Your task to perform on an android device: turn off priority inbox in the gmail app Image 0: 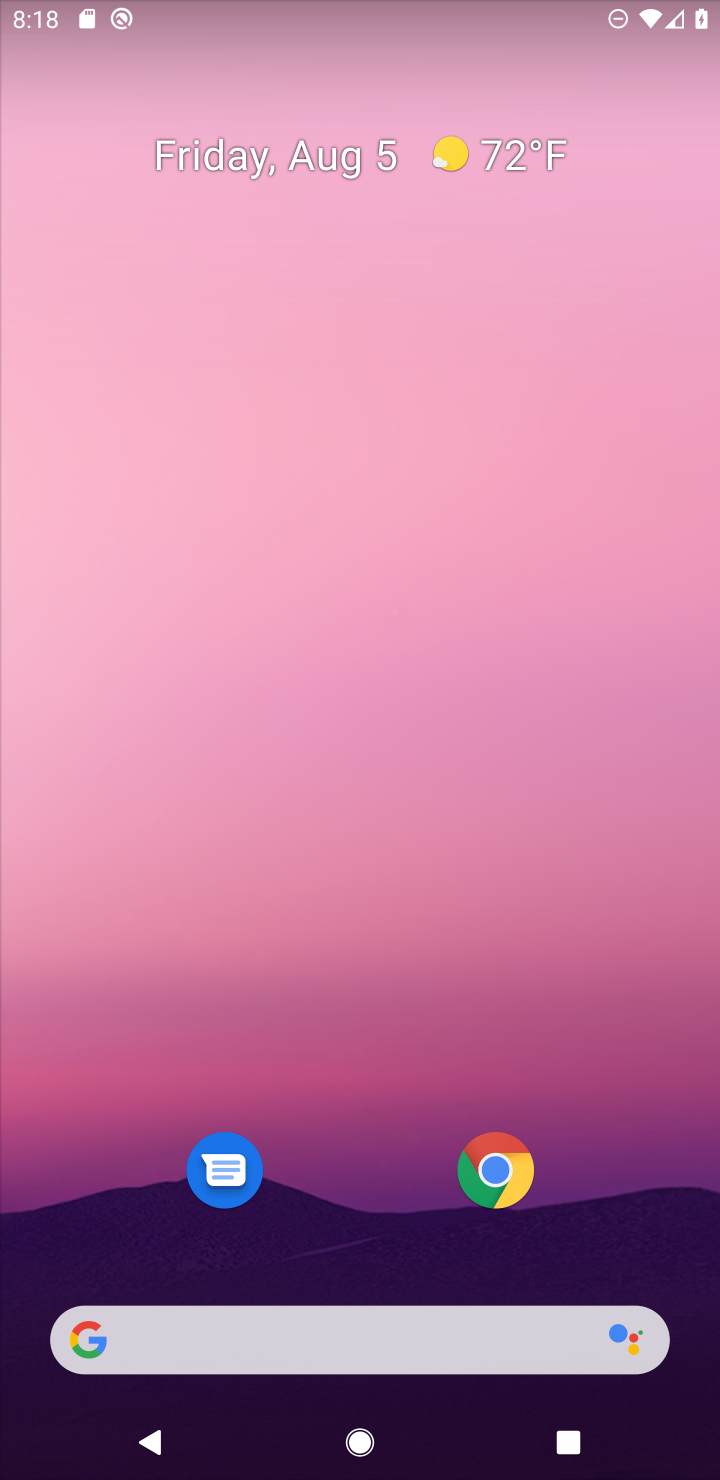
Step 0: drag from (658, 1055) to (639, 358)
Your task to perform on an android device: turn off priority inbox in the gmail app Image 1: 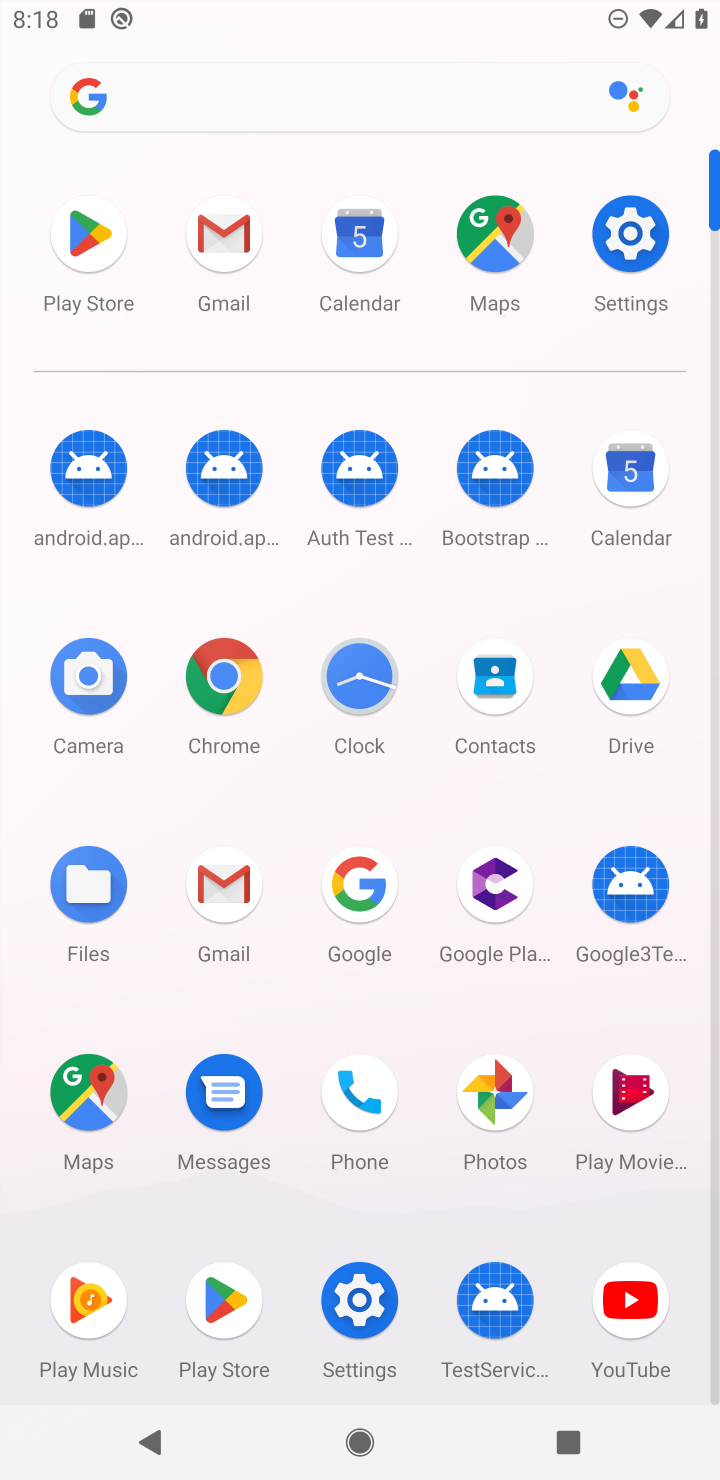
Step 1: click (221, 879)
Your task to perform on an android device: turn off priority inbox in the gmail app Image 2: 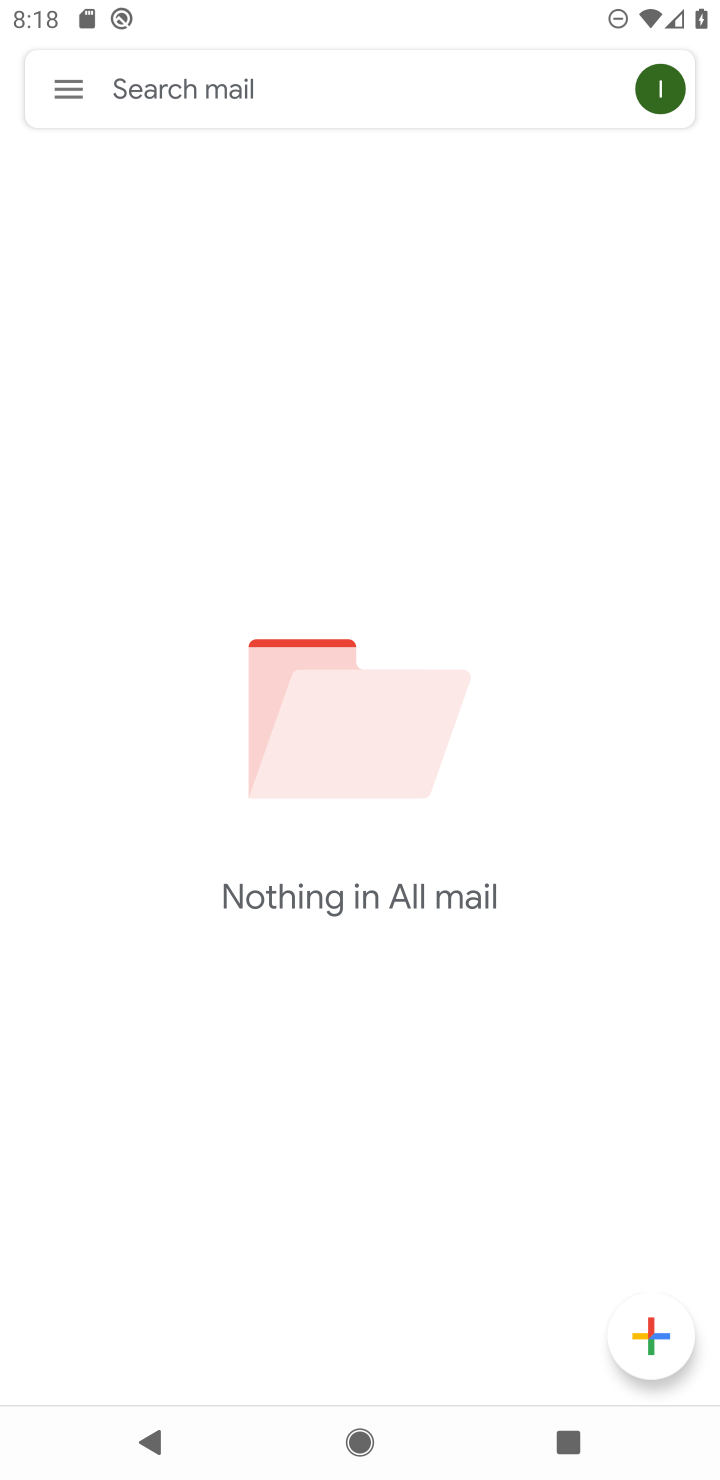
Step 2: click (68, 96)
Your task to perform on an android device: turn off priority inbox in the gmail app Image 3: 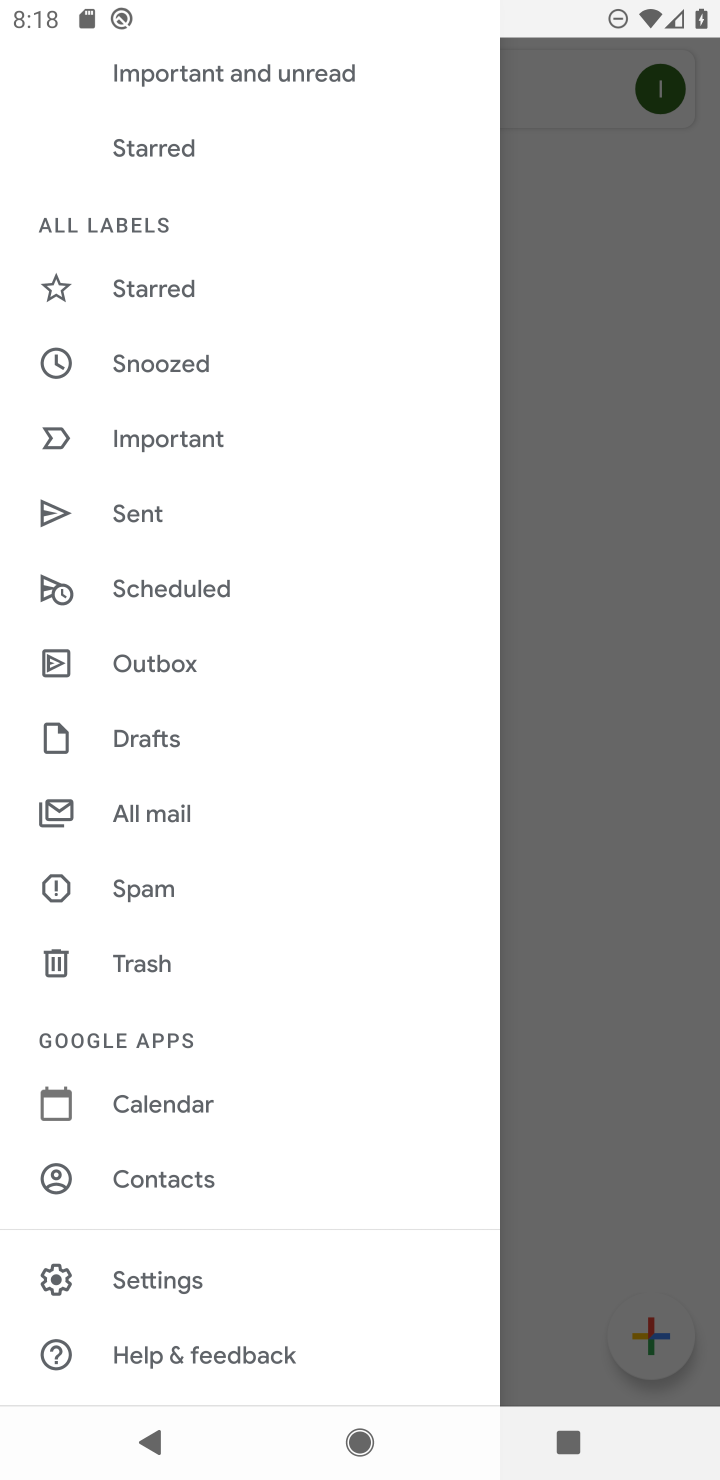
Step 3: click (144, 1289)
Your task to perform on an android device: turn off priority inbox in the gmail app Image 4: 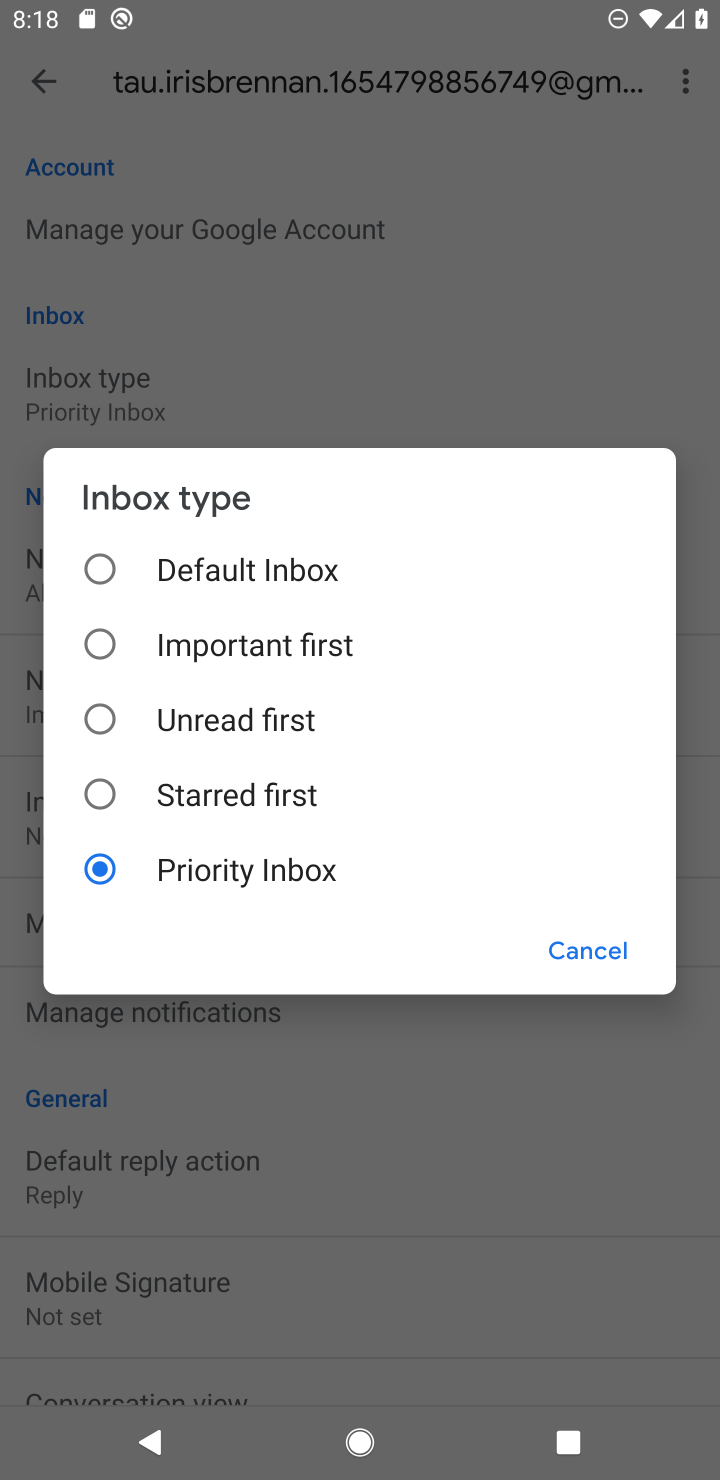
Step 4: click (100, 561)
Your task to perform on an android device: turn off priority inbox in the gmail app Image 5: 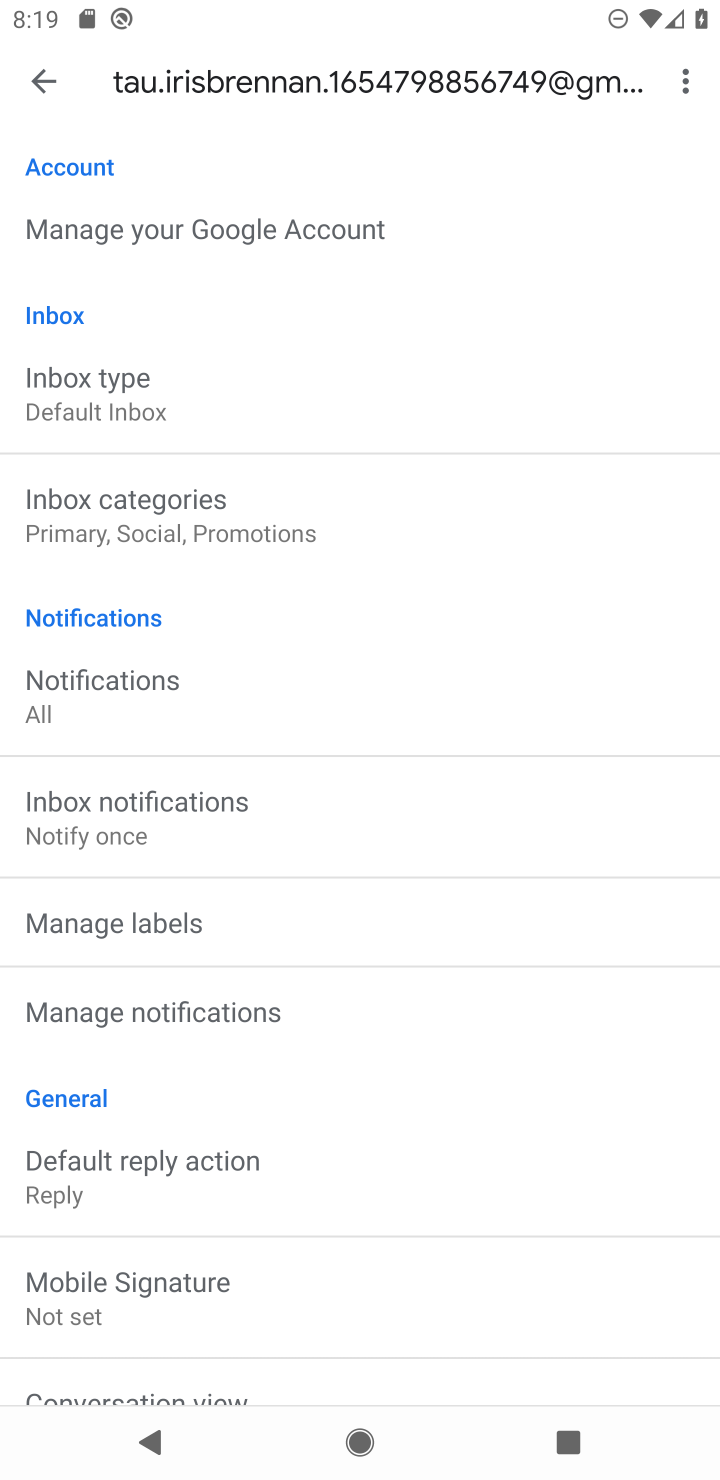
Step 5: task complete